Your task to perform on an android device: Open maps Image 0: 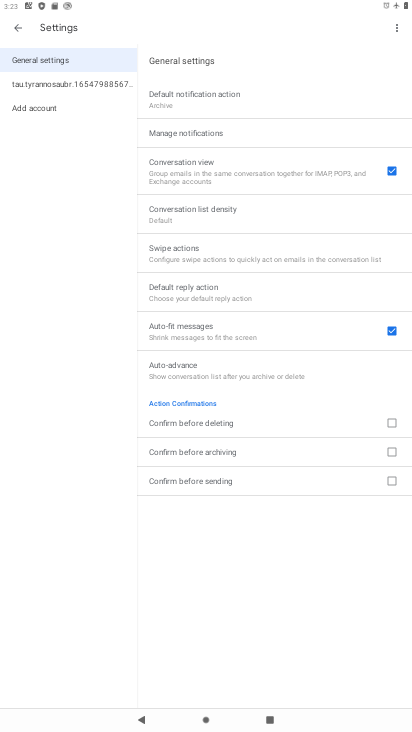
Step 0: press home button
Your task to perform on an android device: Open maps Image 1: 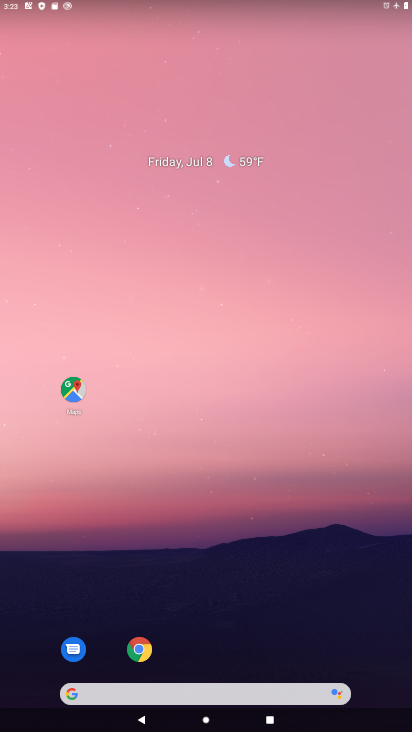
Step 1: drag from (277, 605) to (286, 164)
Your task to perform on an android device: Open maps Image 2: 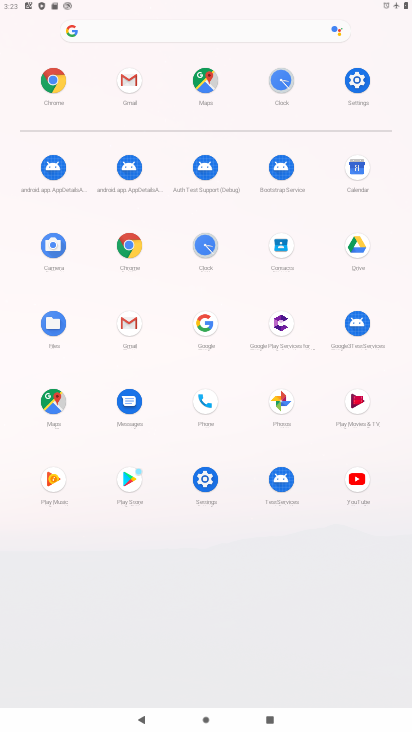
Step 2: click (204, 79)
Your task to perform on an android device: Open maps Image 3: 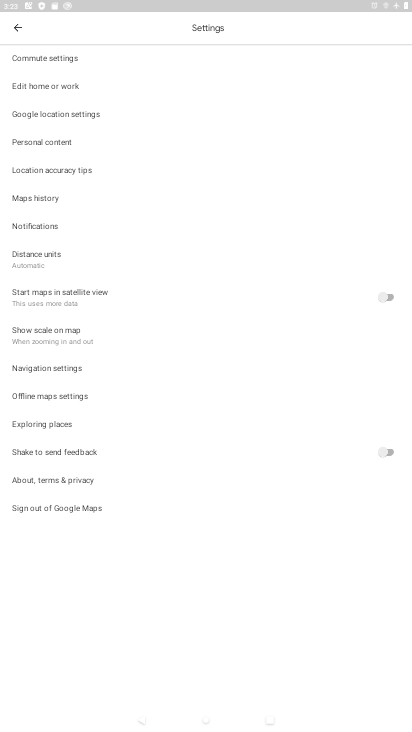
Step 3: click (20, 29)
Your task to perform on an android device: Open maps Image 4: 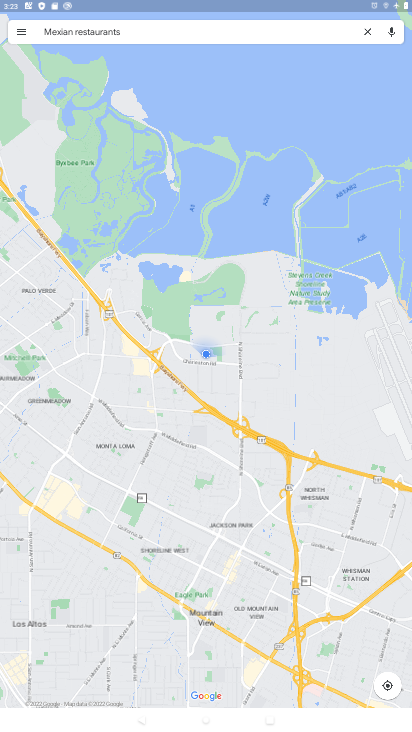
Step 4: task complete